Your task to perform on an android device: turn on javascript in the chrome app Image 0: 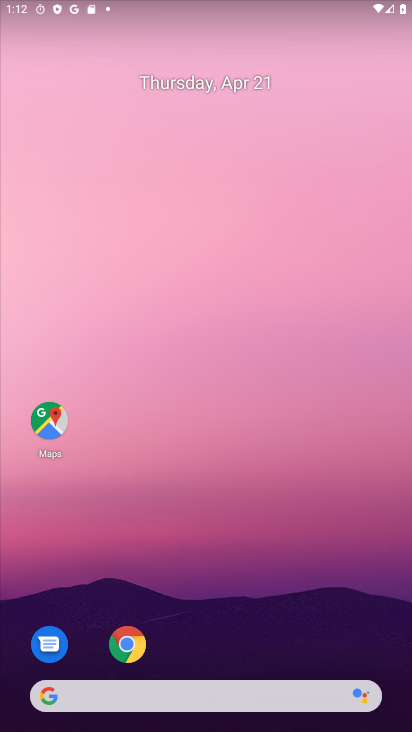
Step 0: click (131, 631)
Your task to perform on an android device: turn on javascript in the chrome app Image 1: 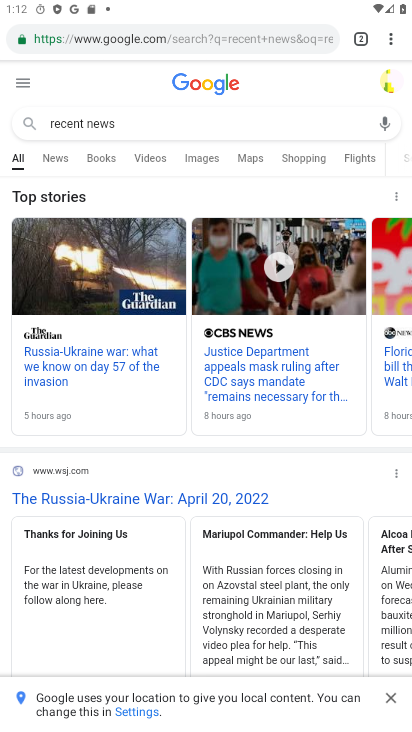
Step 1: drag from (396, 41) to (256, 482)
Your task to perform on an android device: turn on javascript in the chrome app Image 2: 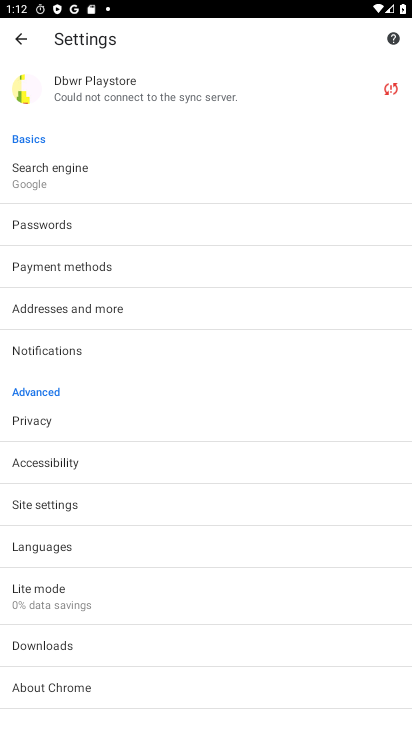
Step 2: click (223, 511)
Your task to perform on an android device: turn on javascript in the chrome app Image 3: 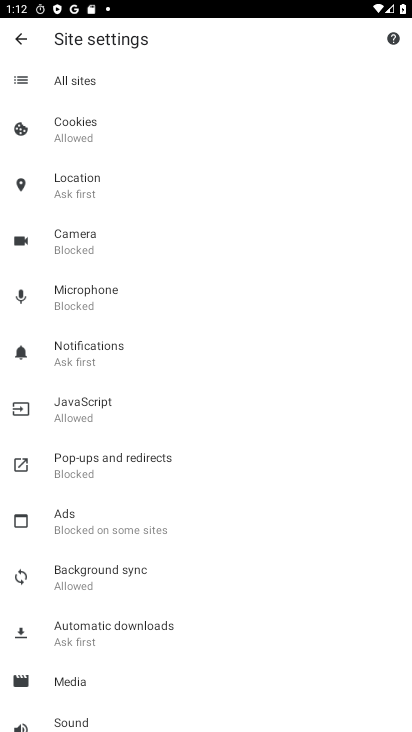
Step 3: click (188, 414)
Your task to perform on an android device: turn on javascript in the chrome app Image 4: 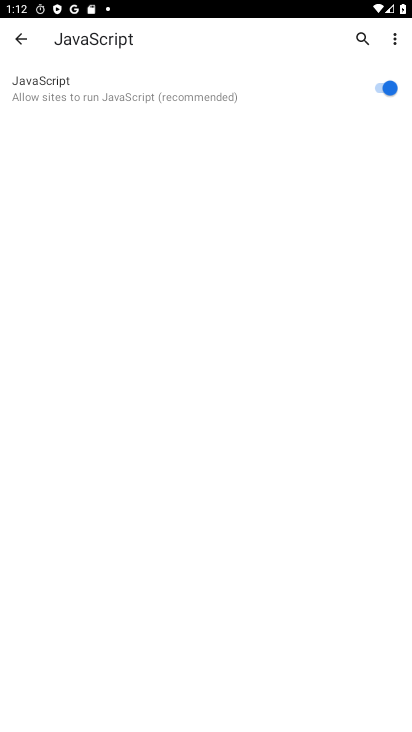
Step 4: task complete